Your task to perform on an android device: open a bookmark in the chrome app Image 0: 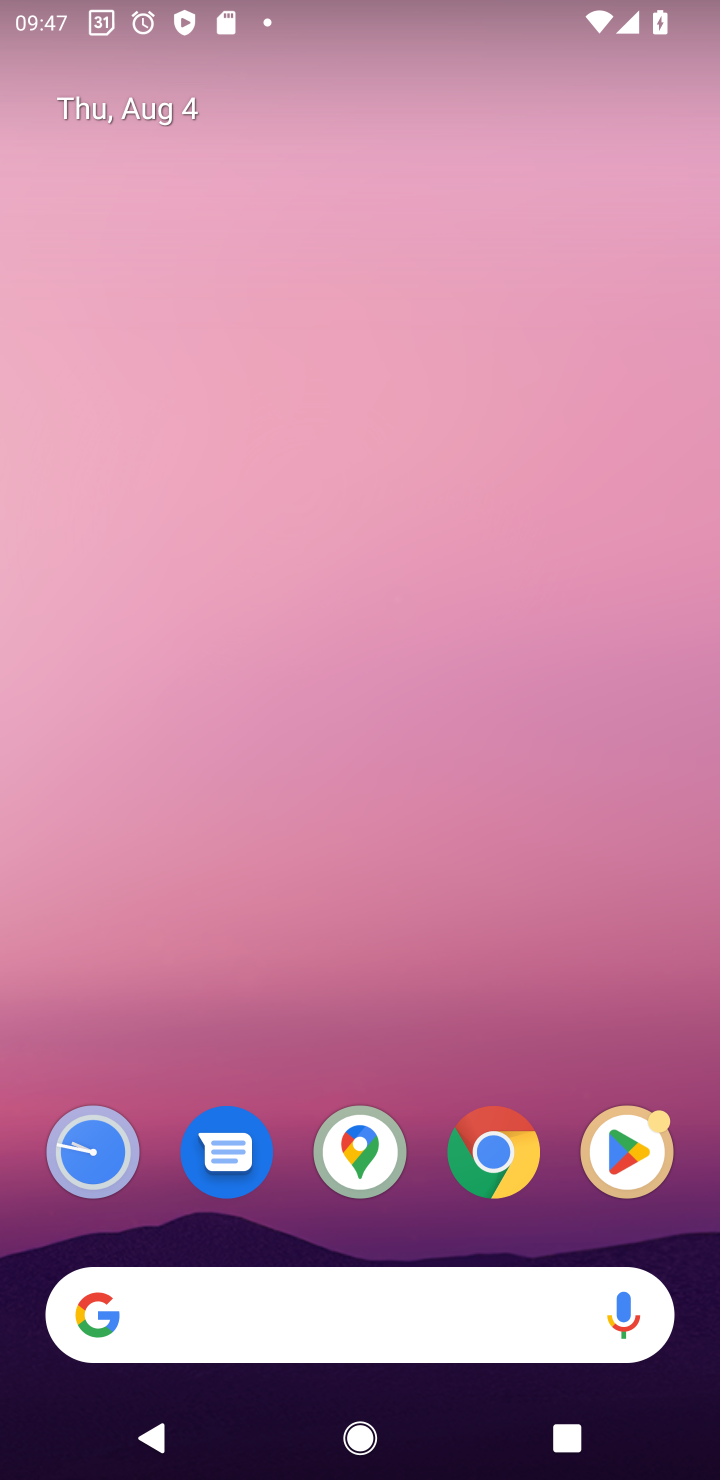
Step 0: press home button
Your task to perform on an android device: open a bookmark in the chrome app Image 1: 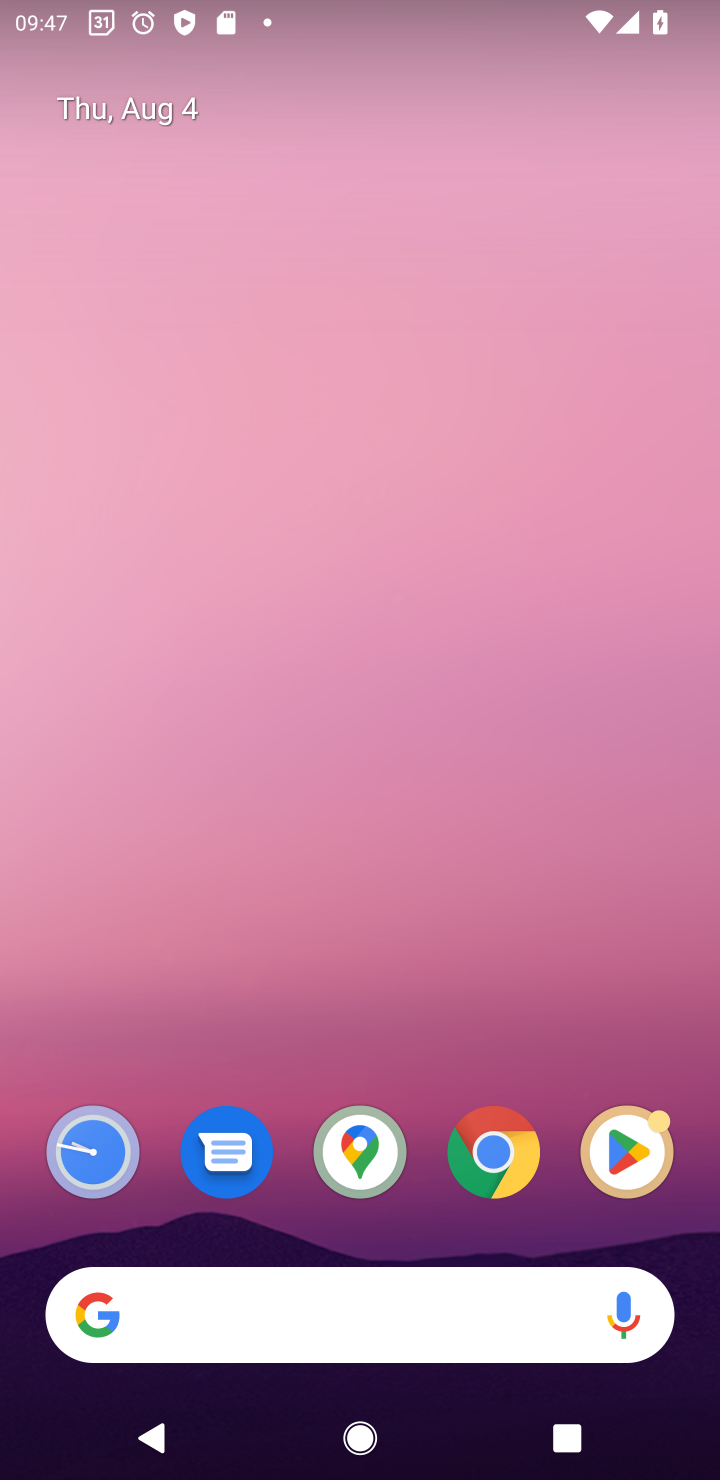
Step 1: click (497, 1147)
Your task to perform on an android device: open a bookmark in the chrome app Image 2: 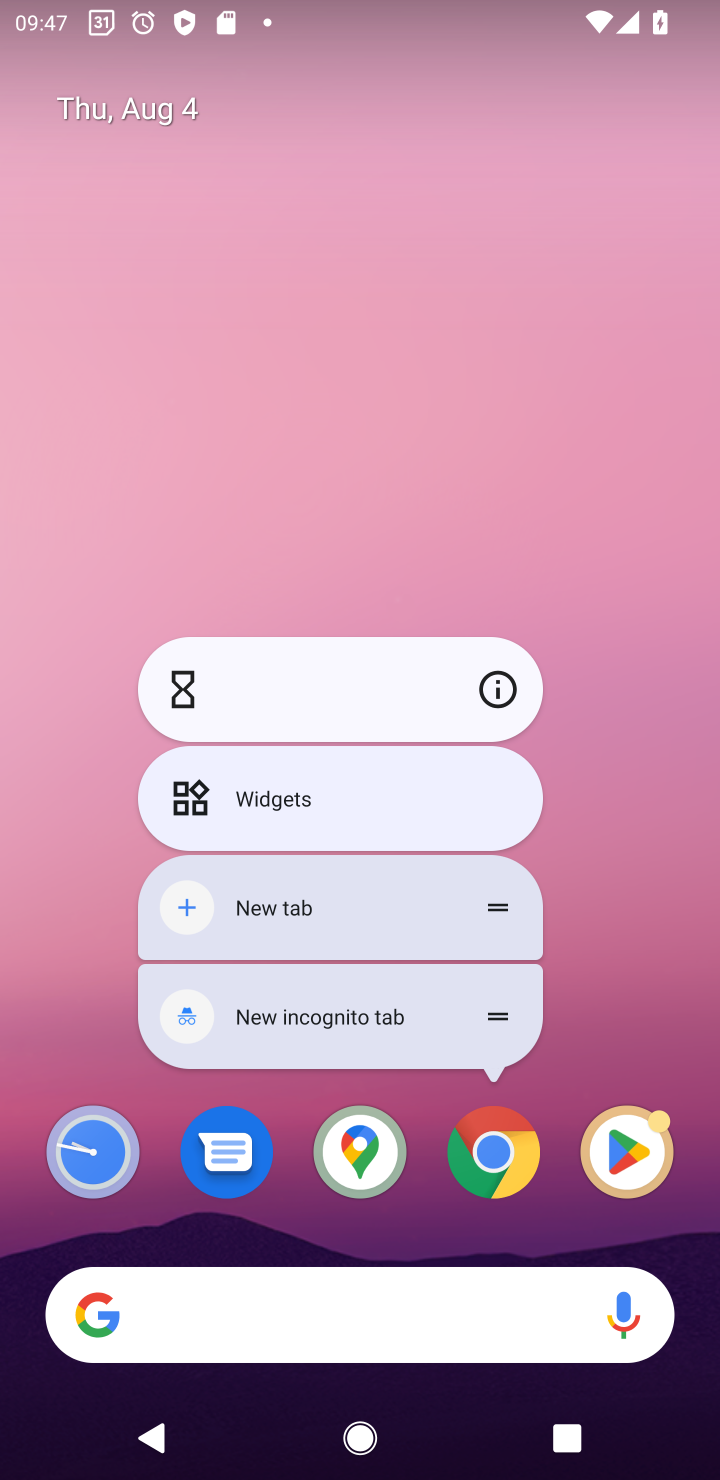
Step 2: click (497, 1147)
Your task to perform on an android device: open a bookmark in the chrome app Image 3: 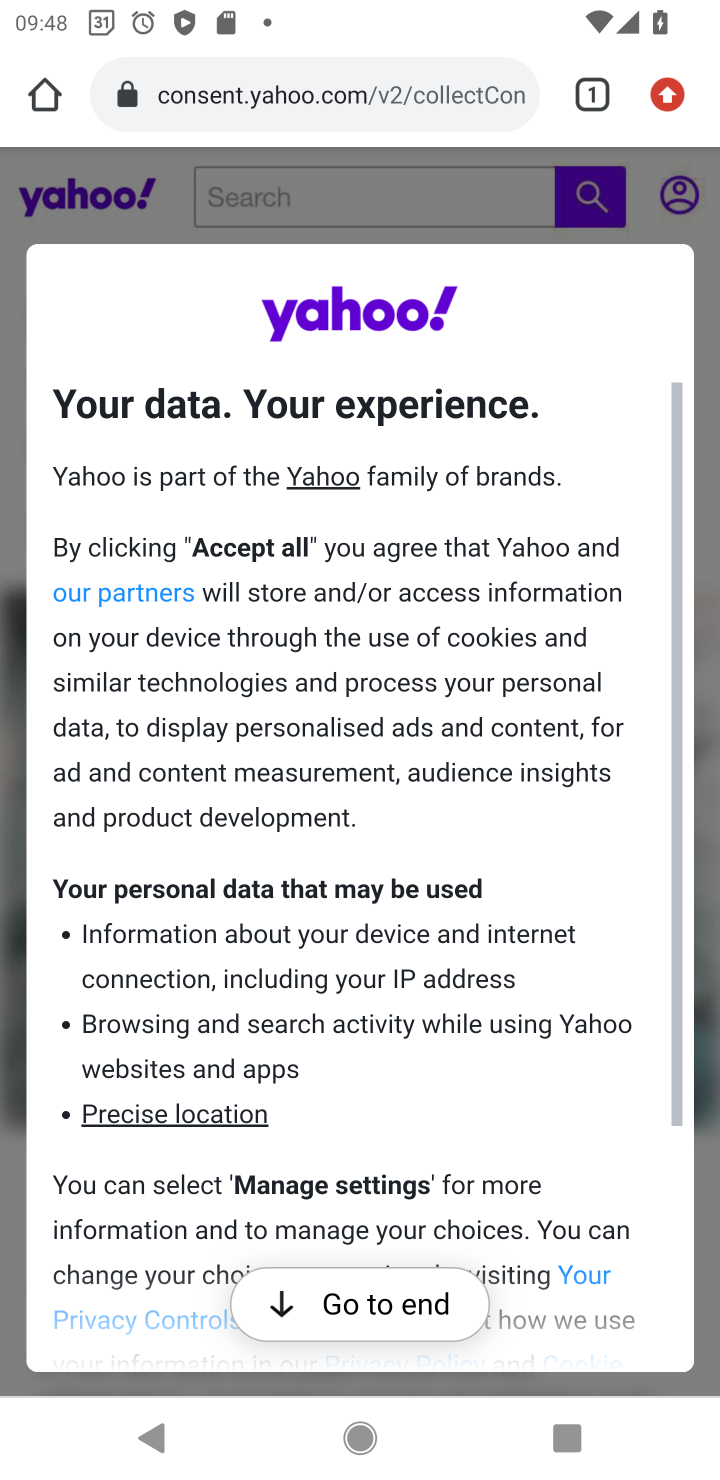
Step 3: click (659, 90)
Your task to perform on an android device: open a bookmark in the chrome app Image 4: 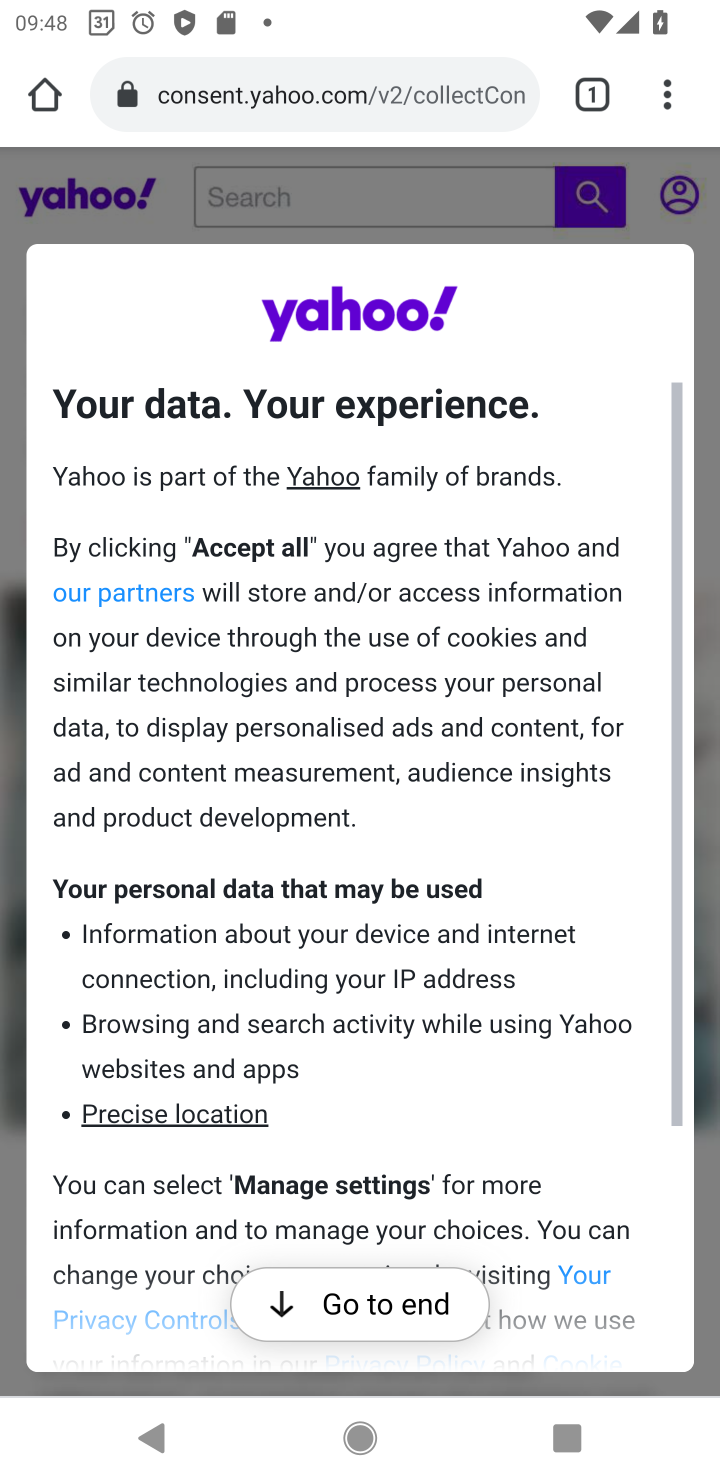
Step 4: click (667, 84)
Your task to perform on an android device: open a bookmark in the chrome app Image 5: 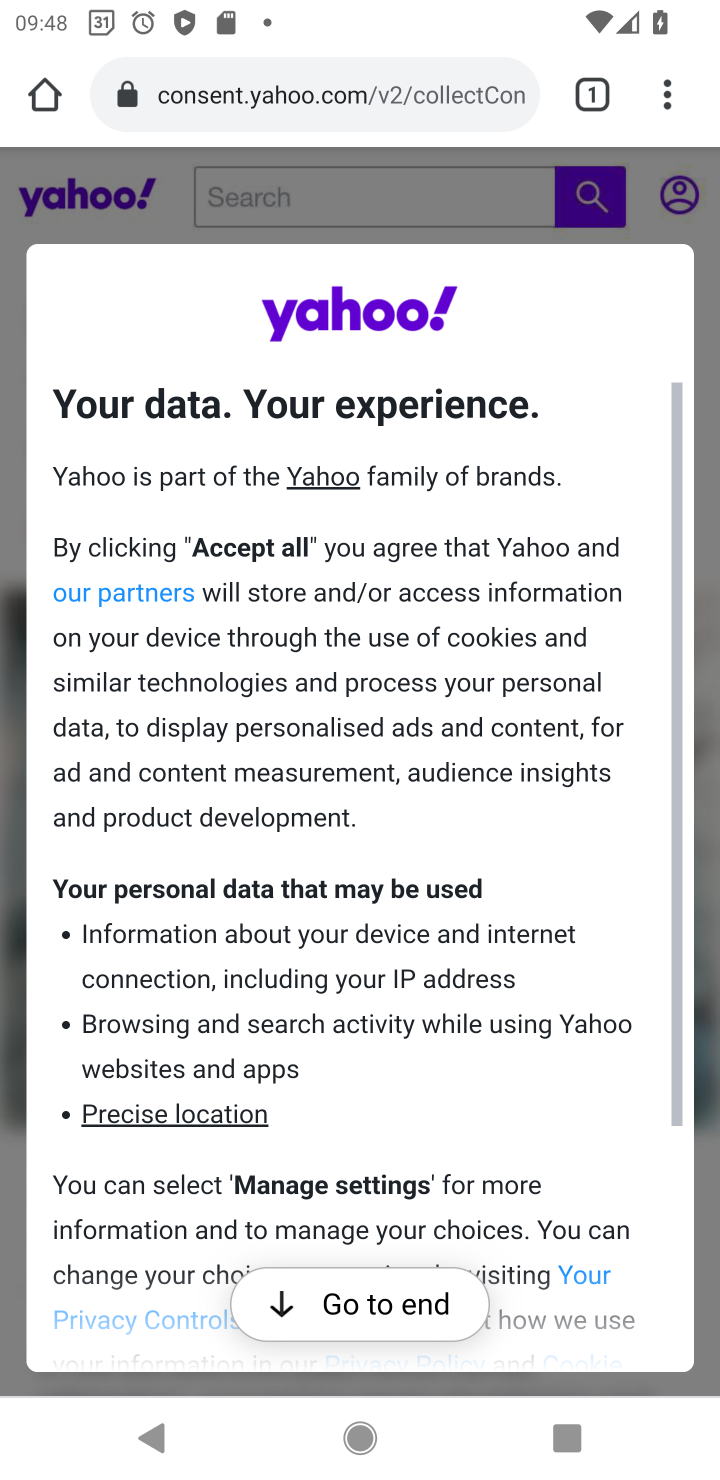
Step 5: click (656, 73)
Your task to perform on an android device: open a bookmark in the chrome app Image 6: 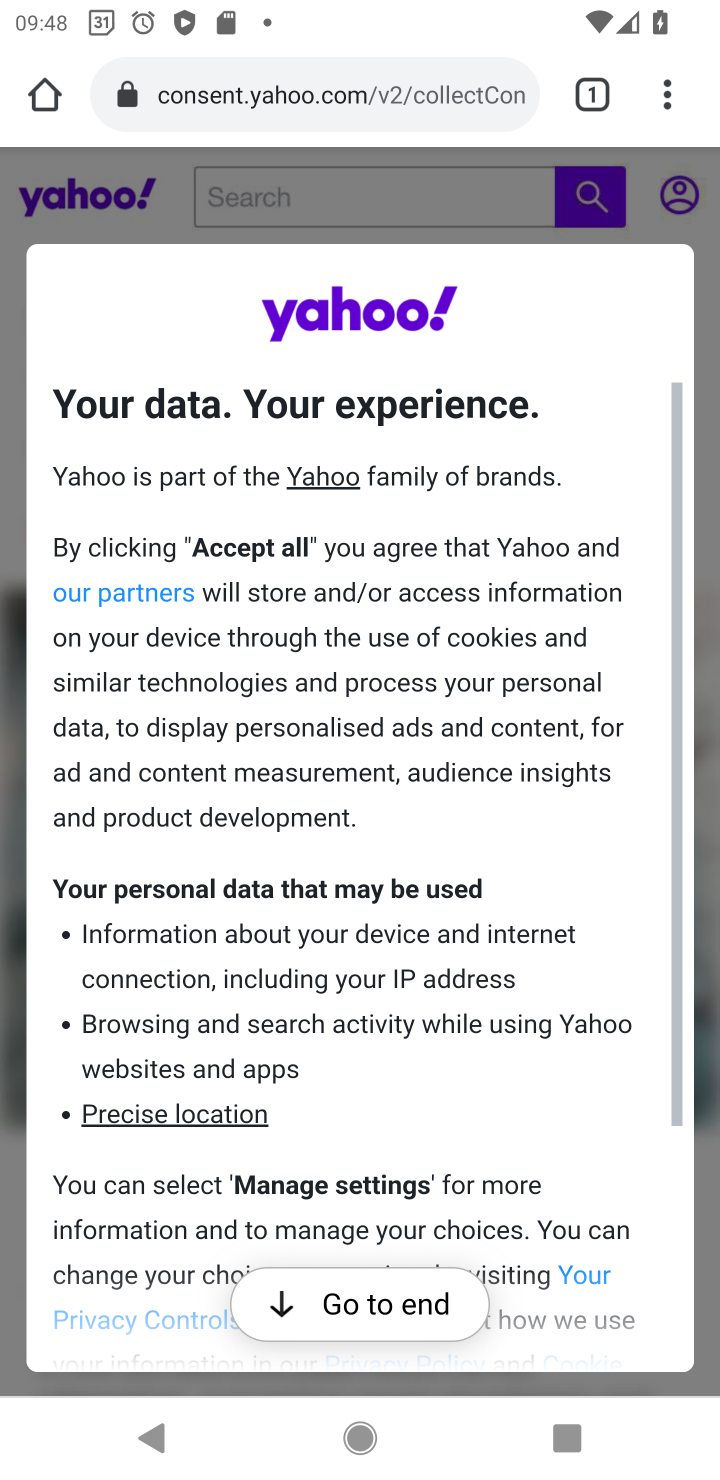
Step 6: click (665, 94)
Your task to perform on an android device: open a bookmark in the chrome app Image 7: 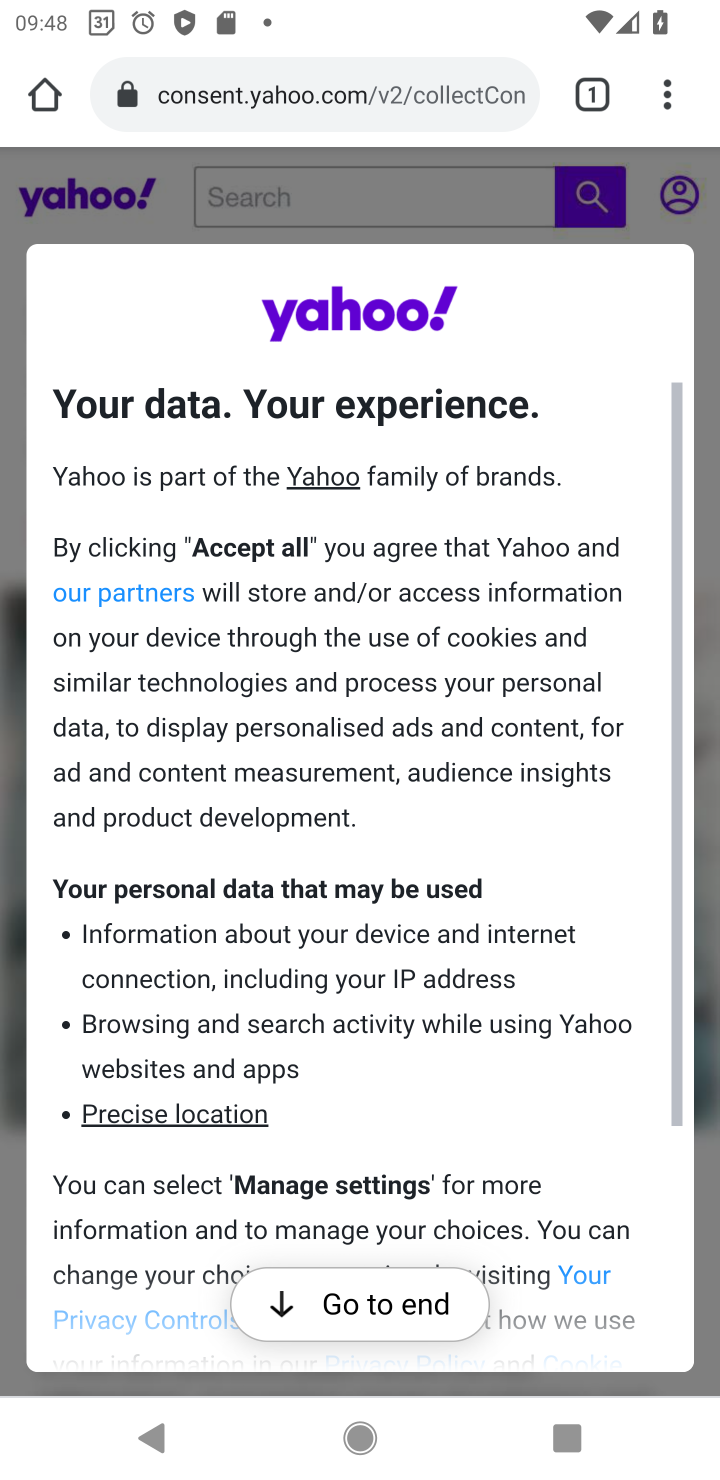
Step 7: click (673, 89)
Your task to perform on an android device: open a bookmark in the chrome app Image 8: 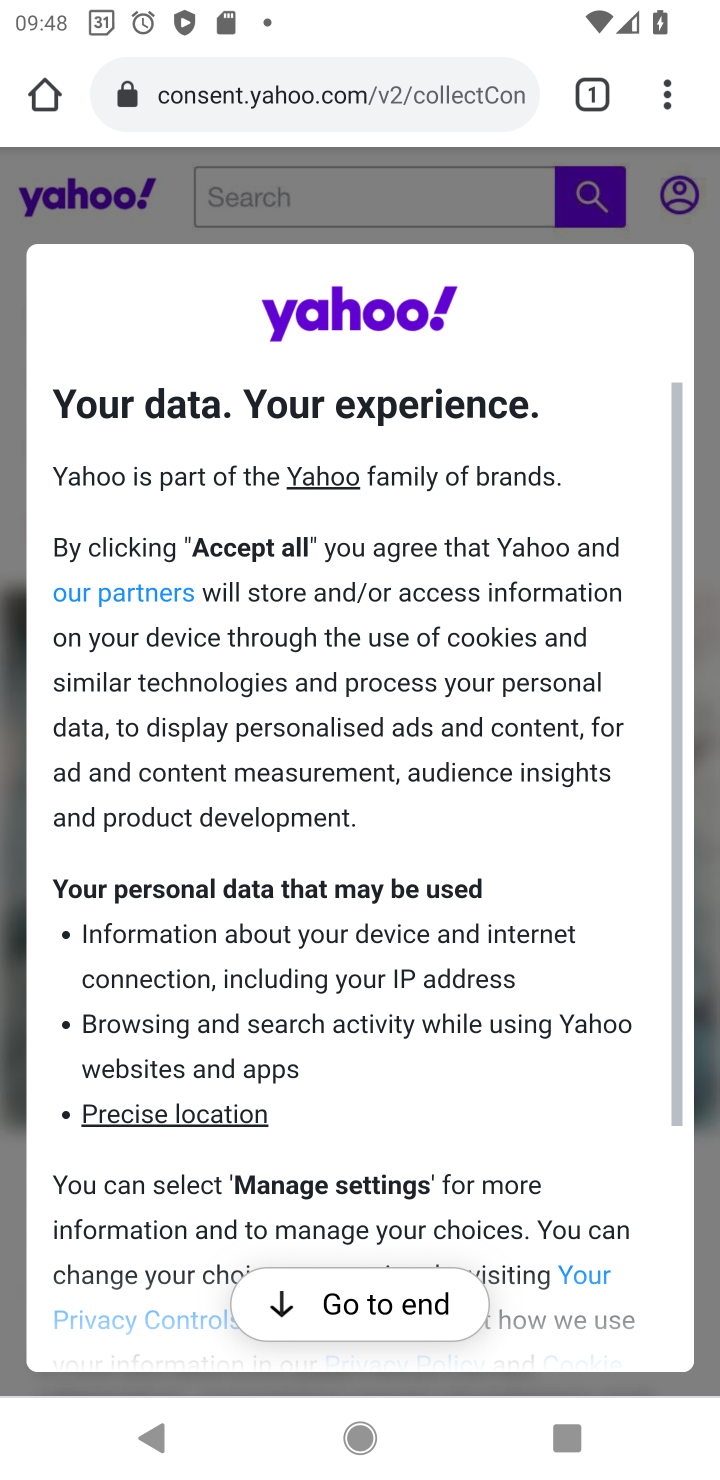
Step 8: click (371, 667)
Your task to perform on an android device: open a bookmark in the chrome app Image 9: 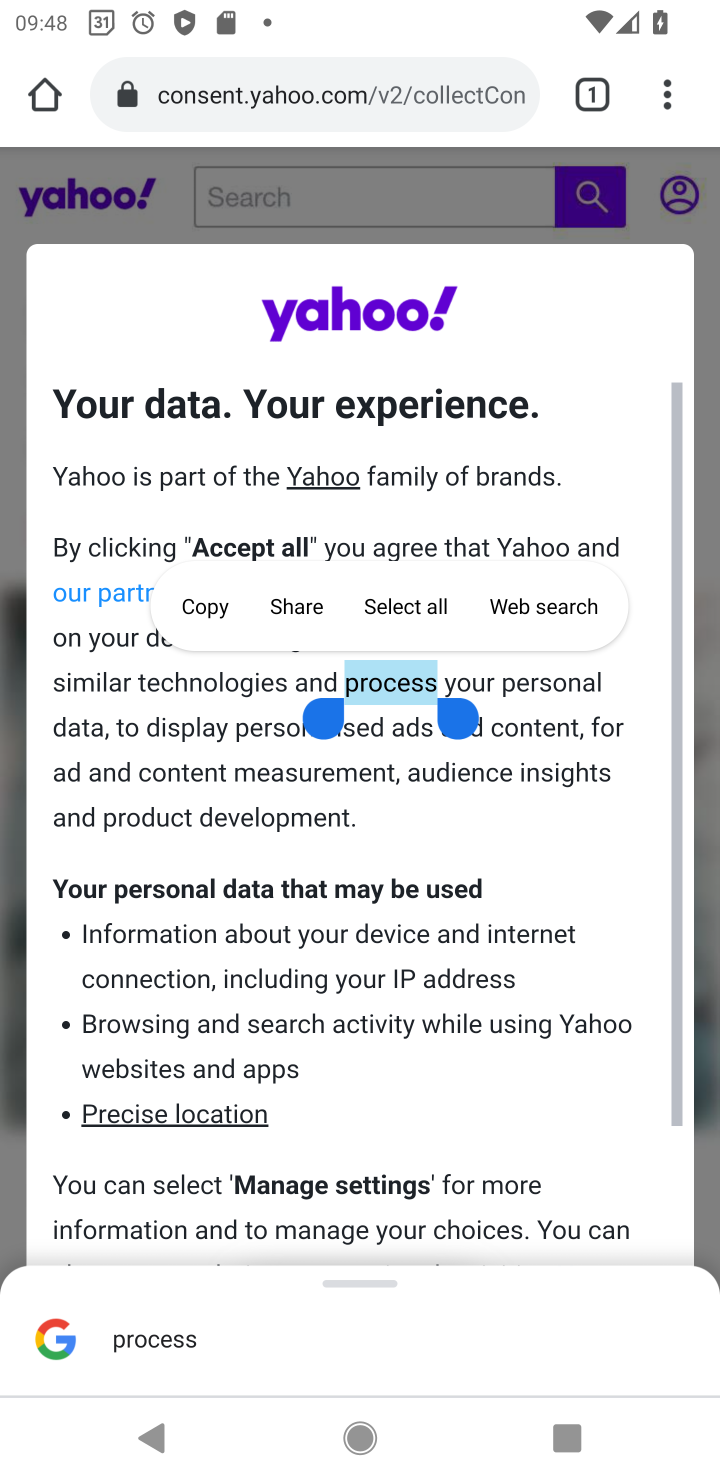
Step 9: task complete